Your task to perform on an android device: Go to accessibility settings Image 0: 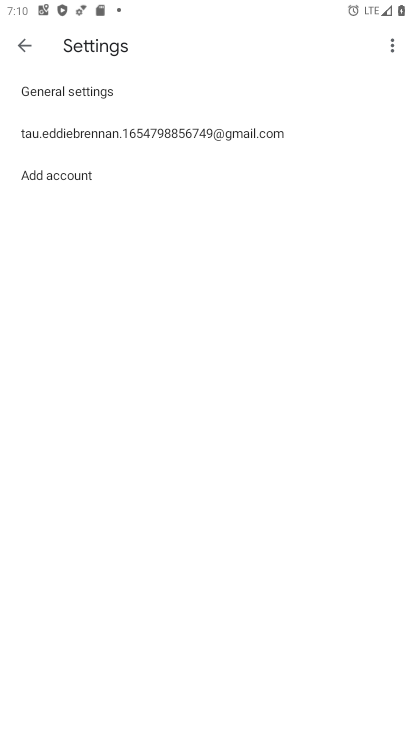
Step 0: press home button
Your task to perform on an android device: Go to accessibility settings Image 1: 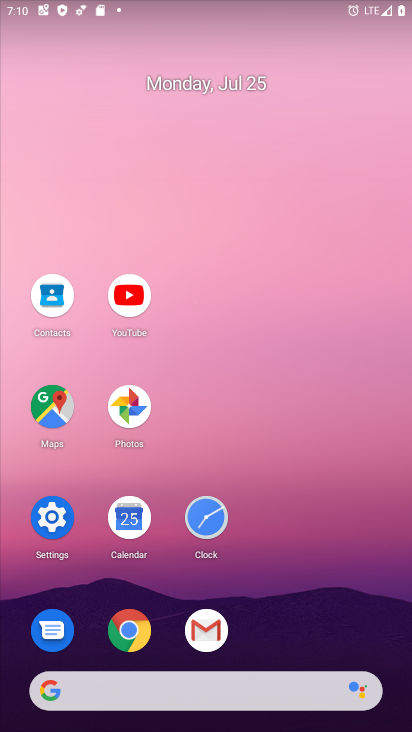
Step 1: click (51, 516)
Your task to perform on an android device: Go to accessibility settings Image 2: 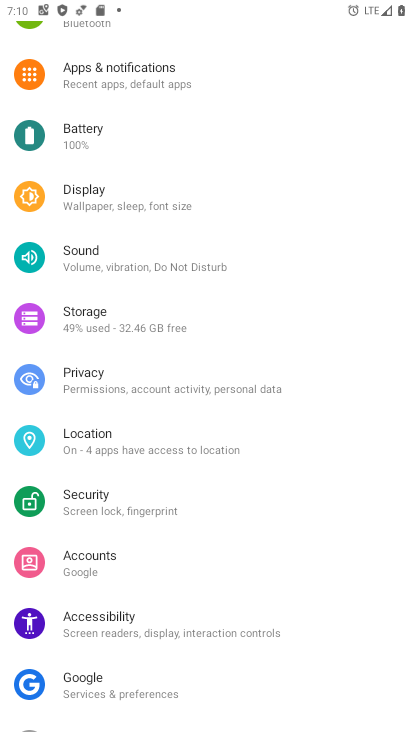
Step 2: click (96, 617)
Your task to perform on an android device: Go to accessibility settings Image 3: 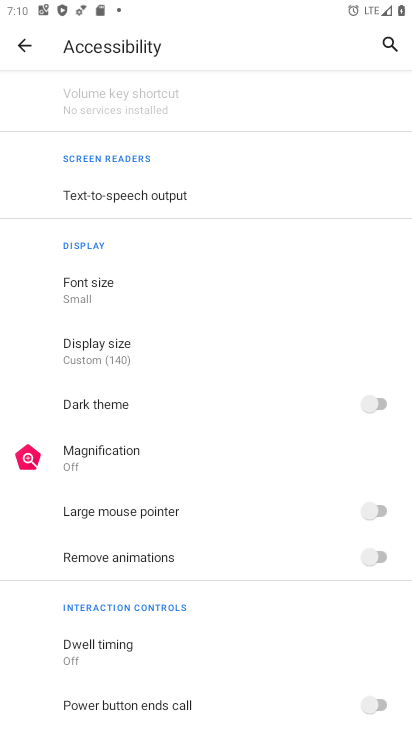
Step 3: task complete